Your task to perform on an android device: turn off javascript in the chrome app Image 0: 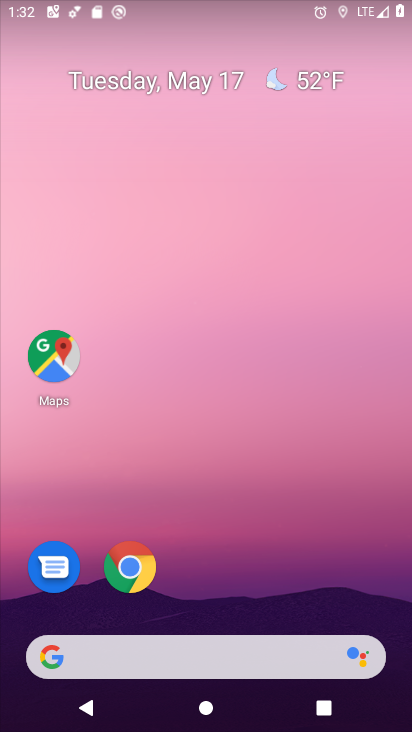
Step 0: click (128, 584)
Your task to perform on an android device: turn off javascript in the chrome app Image 1: 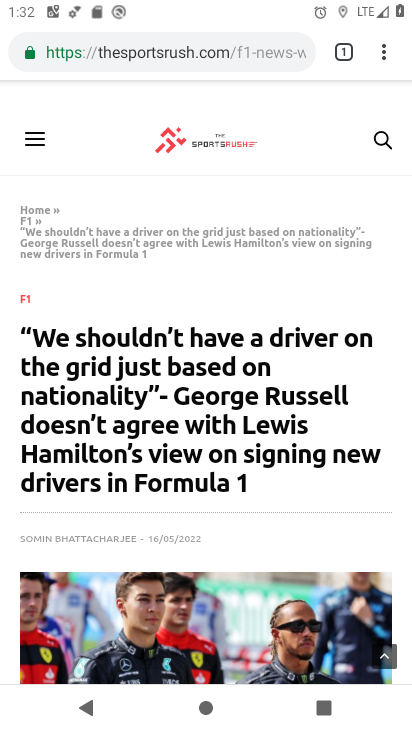
Step 1: click (385, 50)
Your task to perform on an android device: turn off javascript in the chrome app Image 2: 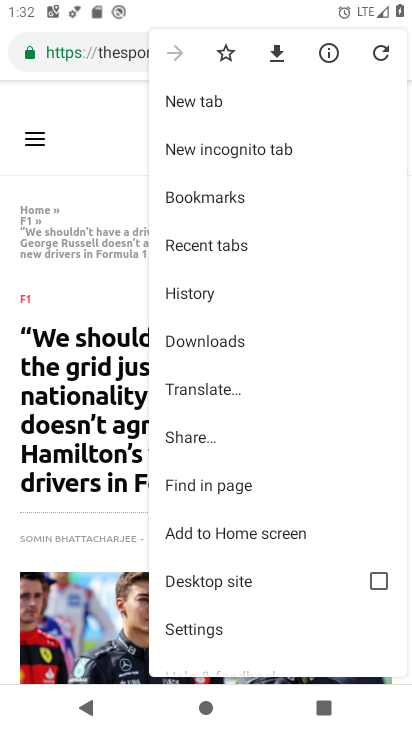
Step 2: click (212, 634)
Your task to perform on an android device: turn off javascript in the chrome app Image 3: 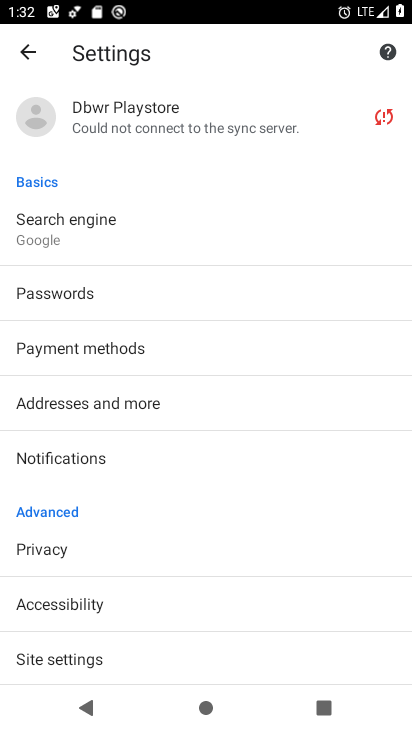
Step 3: drag from (110, 636) to (201, 265)
Your task to perform on an android device: turn off javascript in the chrome app Image 4: 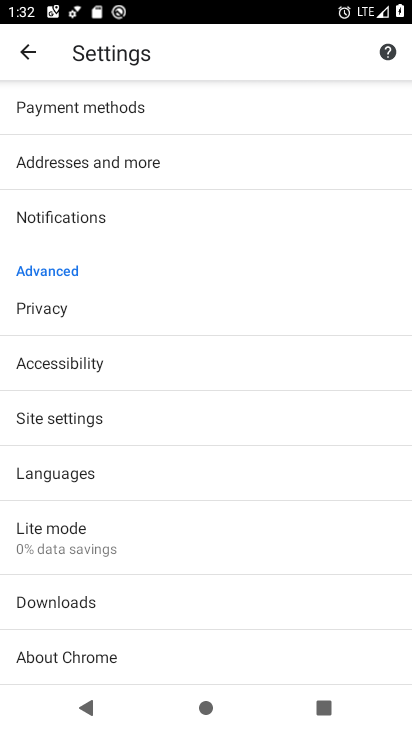
Step 4: click (80, 422)
Your task to perform on an android device: turn off javascript in the chrome app Image 5: 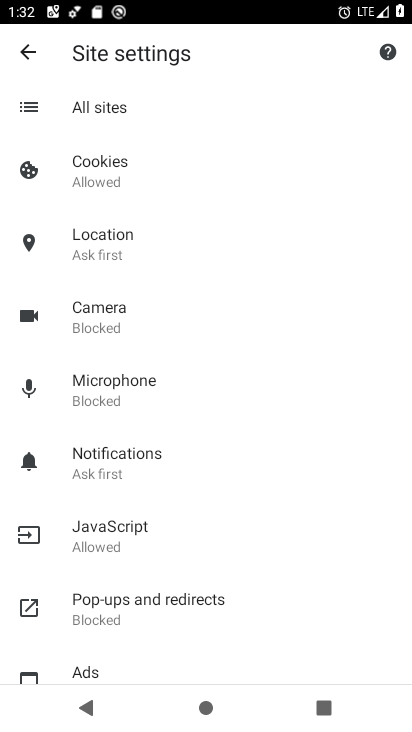
Step 5: click (105, 546)
Your task to perform on an android device: turn off javascript in the chrome app Image 6: 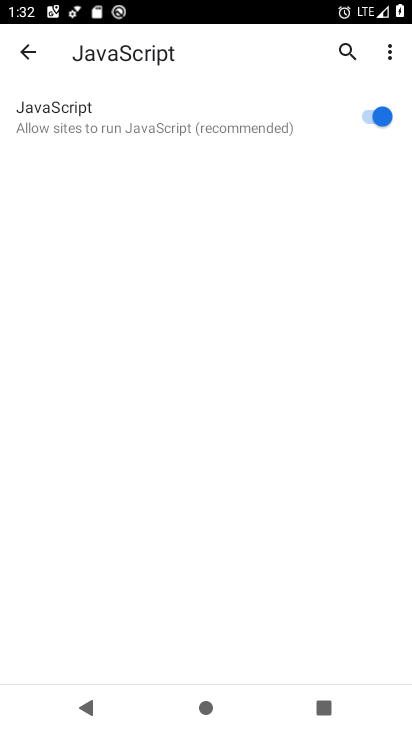
Step 6: click (368, 119)
Your task to perform on an android device: turn off javascript in the chrome app Image 7: 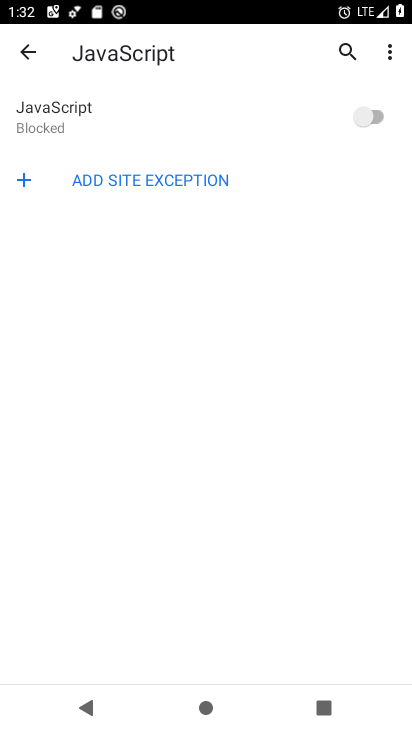
Step 7: task complete